Your task to perform on an android device: turn on location history Image 0: 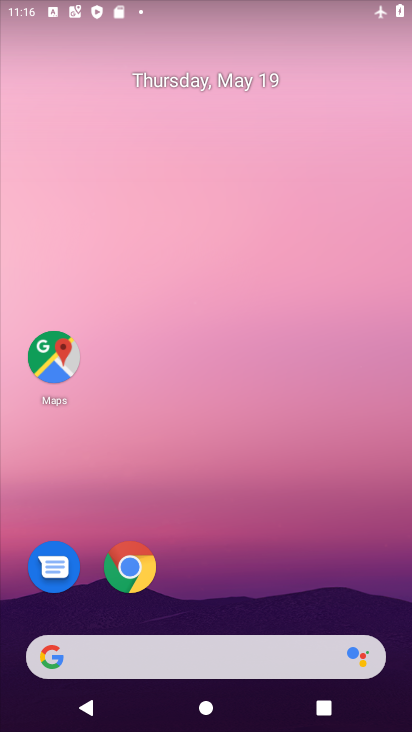
Step 0: drag from (394, 622) to (314, 108)
Your task to perform on an android device: turn on location history Image 1: 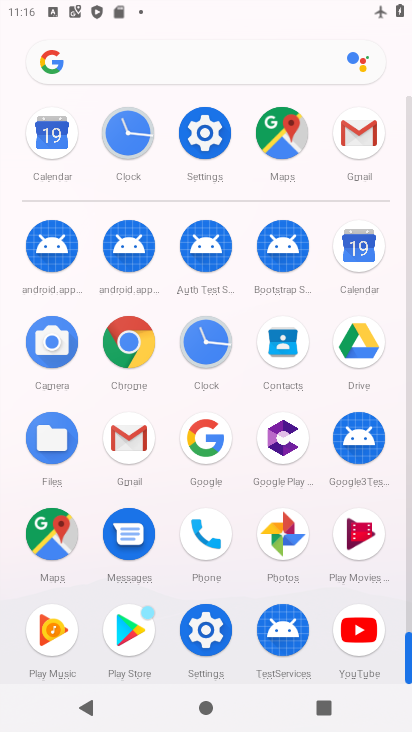
Step 1: click (52, 533)
Your task to perform on an android device: turn on location history Image 2: 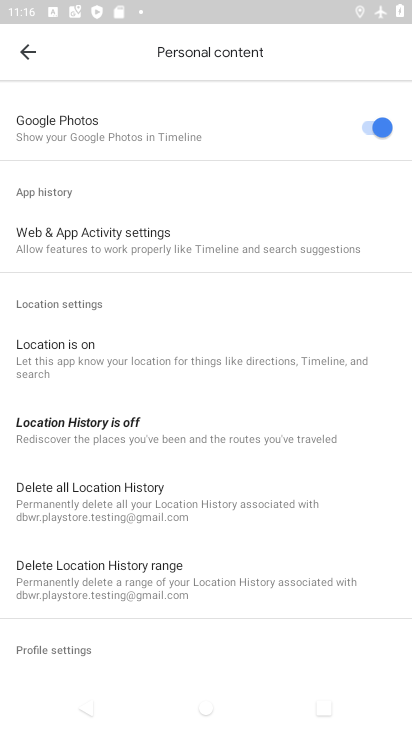
Step 2: click (97, 422)
Your task to perform on an android device: turn on location history Image 3: 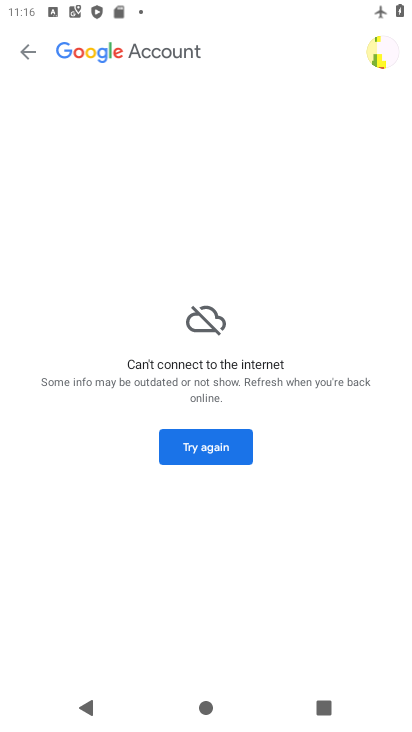
Step 3: click (202, 450)
Your task to perform on an android device: turn on location history Image 4: 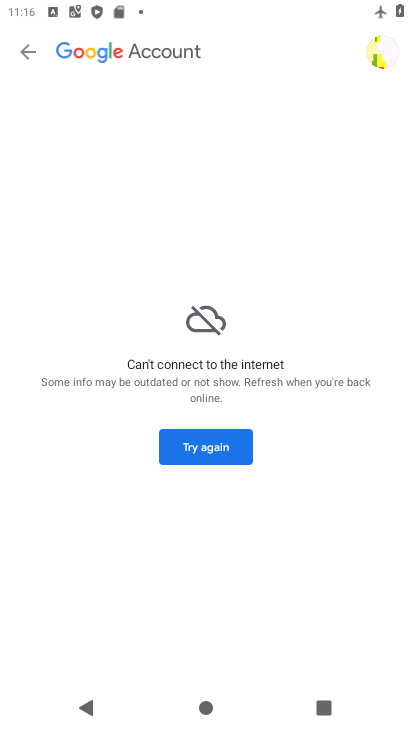
Step 4: task complete